Your task to perform on an android device: turn vacation reply on in the gmail app Image 0: 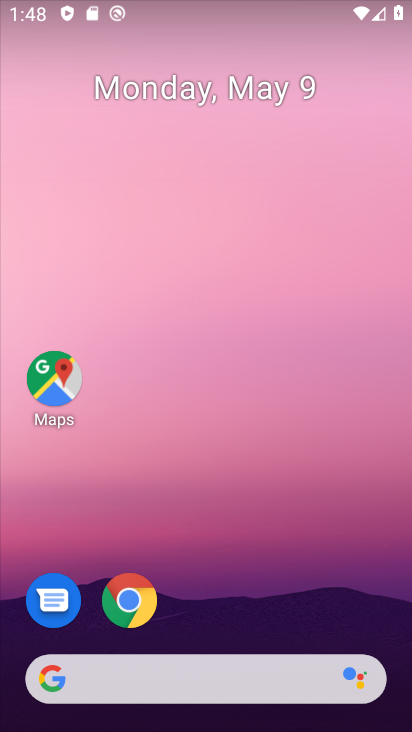
Step 0: drag from (207, 624) to (215, 29)
Your task to perform on an android device: turn vacation reply on in the gmail app Image 1: 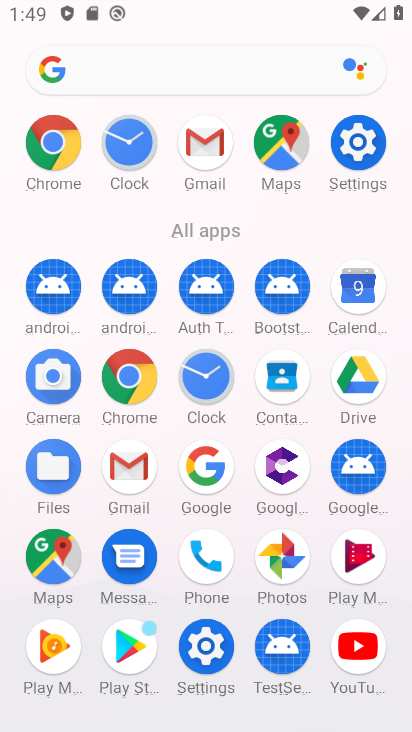
Step 1: click (119, 478)
Your task to perform on an android device: turn vacation reply on in the gmail app Image 2: 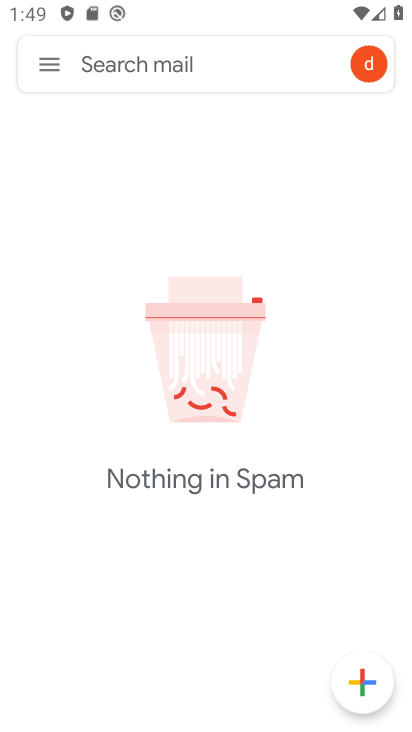
Step 2: click (53, 49)
Your task to perform on an android device: turn vacation reply on in the gmail app Image 3: 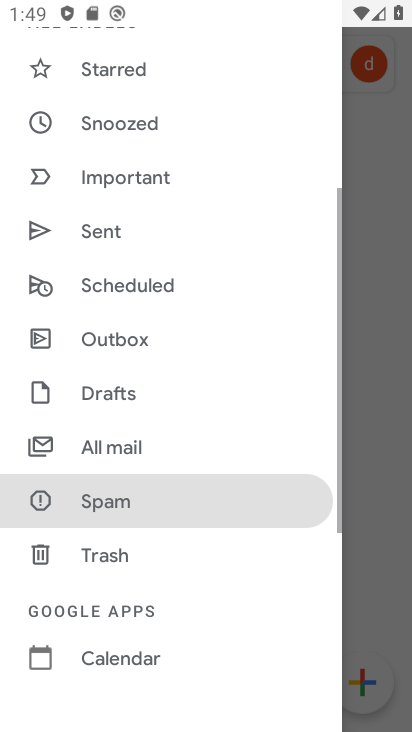
Step 3: drag from (184, 642) to (168, 182)
Your task to perform on an android device: turn vacation reply on in the gmail app Image 4: 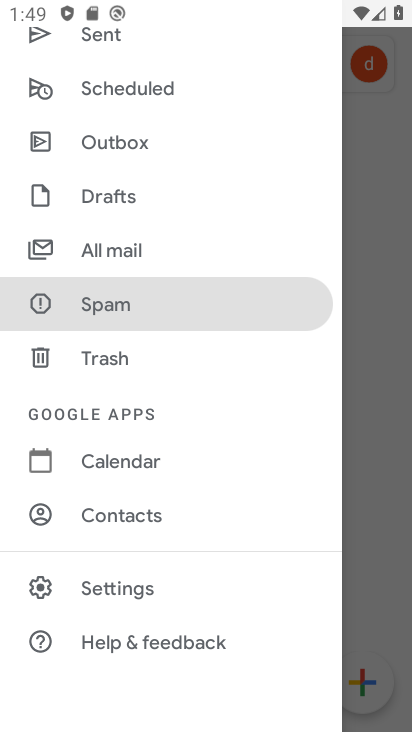
Step 4: click (117, 592)
Your task to perform on an android device: turn vacation reply on in the gmail app Image 5: 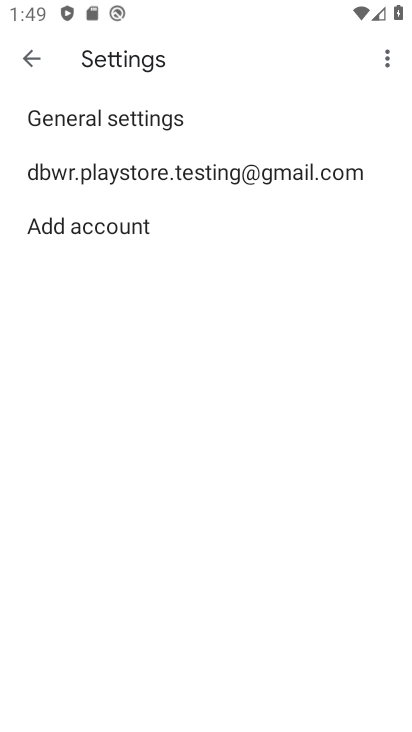
Step 5: click (219, 159)
Your task to perform on an android device: turn vacation reply on in the gmail app Image 6: 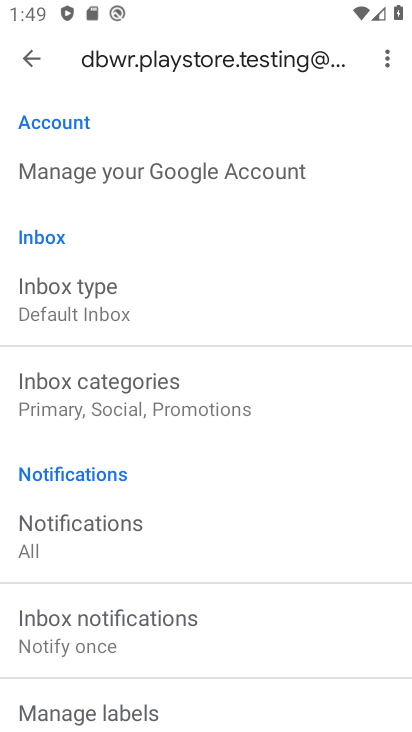
Step 6: drag from (173, 550) to (178, 336)
Your task to perform on an android device: turn vacation reply on in the gmail app Image 7: 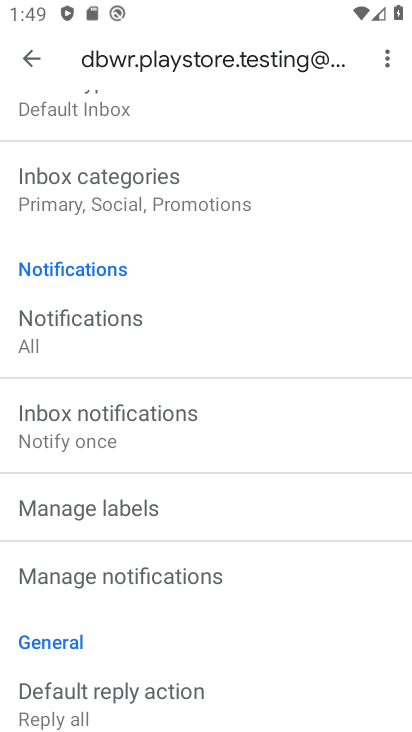
Step 7: drag from (114, 601) to (131, 324)
Your task to perform on an android device: turn vacation reply on in the gmail app Image 8: 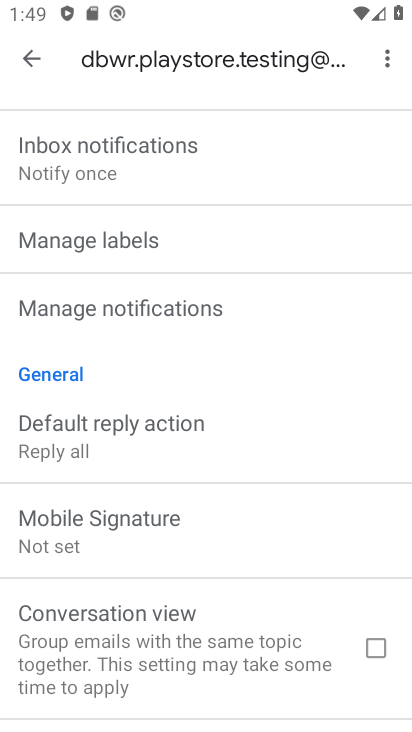
Step 8: drag from (126, 650) to (158, 417)
Your task to perform on an android device: turn vacation reply on in the gmail app Image 9: 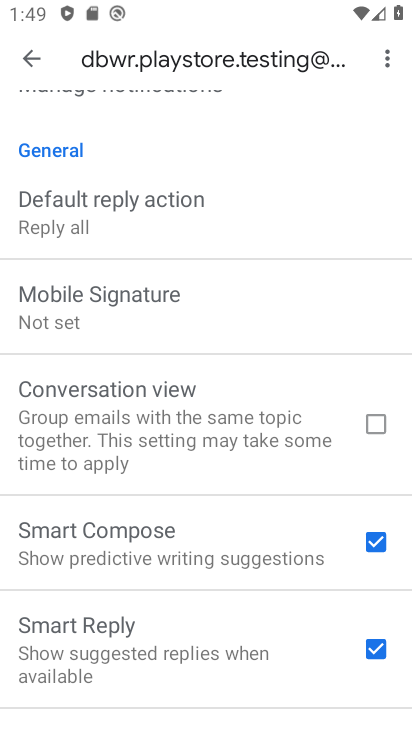
Step 9: drag from (142, 626) to (158, 405)
Your task to perform on an android device: turn vacation reply on in the gmail app Image 10: 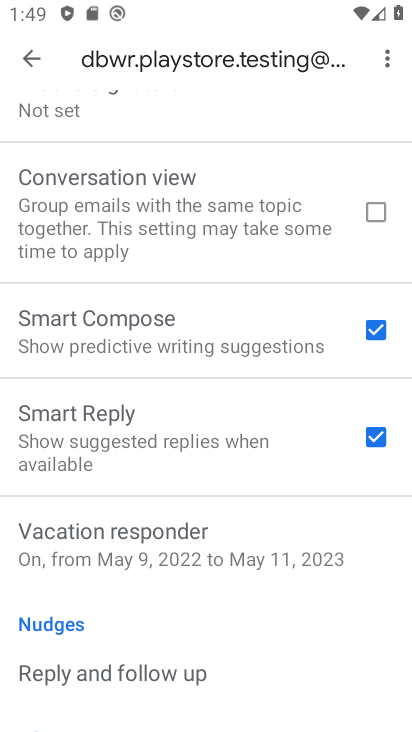
Step 10: click (210, 536)
Your task to perform on an android device: turn vacation reply on in the gmail app Image 11: 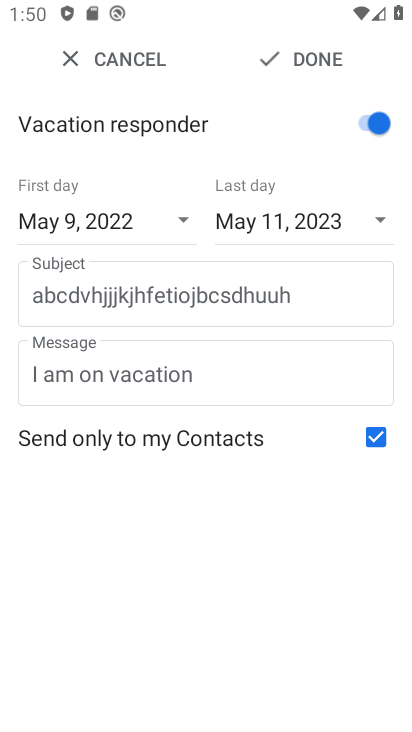
Step 11: click (273, 53)
Your task to perform on an android device: turn vacation reply on in the gmail app Image 12: 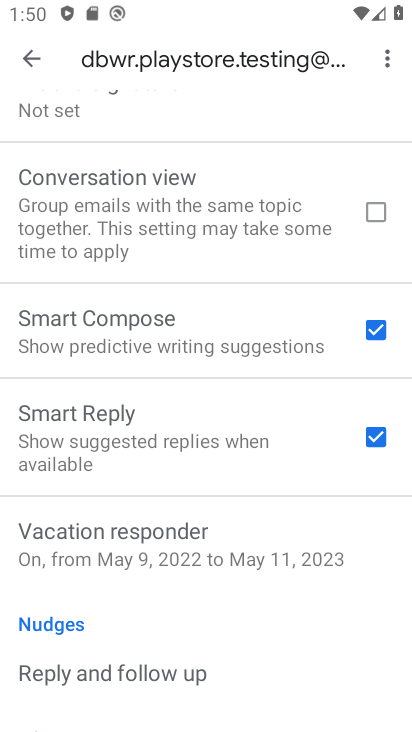
Step 12: task complete